Your task to perform on an android device: turn off data saver in the chrome app Image 0: 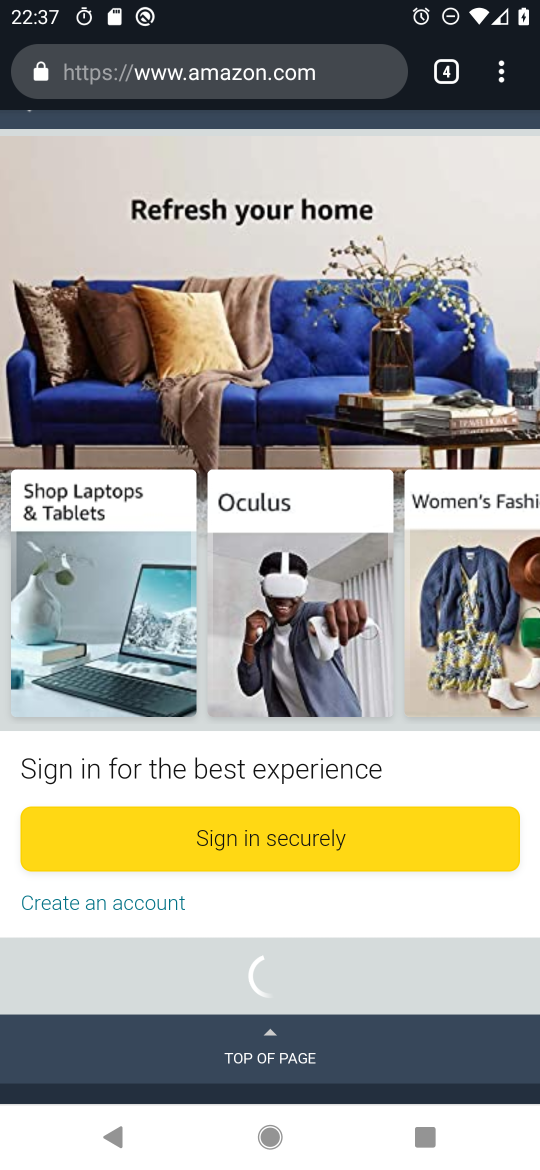
Step 0: press home button
Your task to perform on an android device: turn off data saver in the chrome app Image 1: 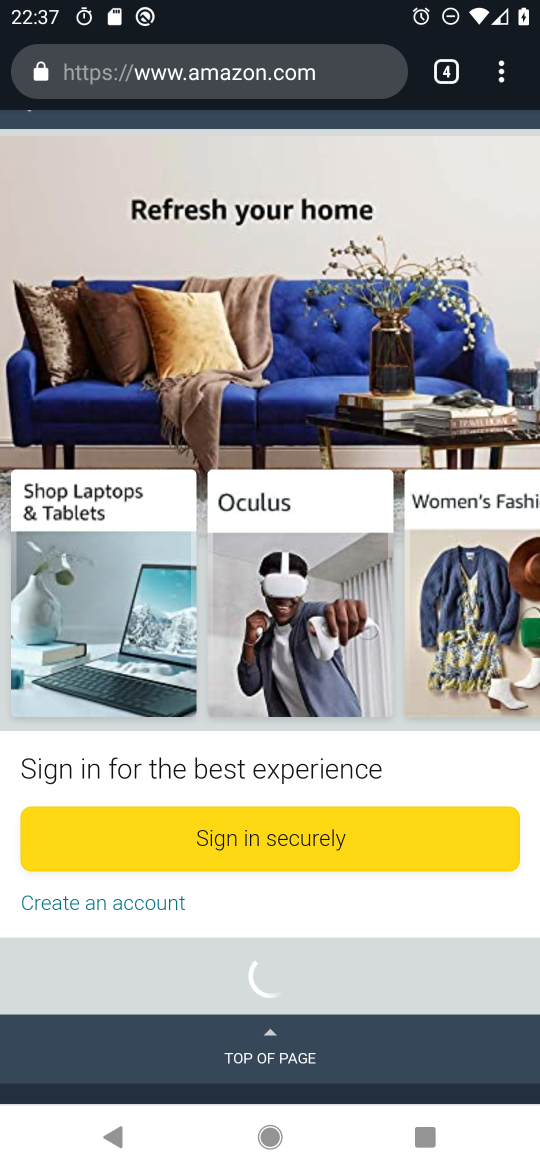
Step 1: drag from (303, 943) to (327, 18)
Your task to perform on an android device: turn off data saver in the chrome app Image 2: 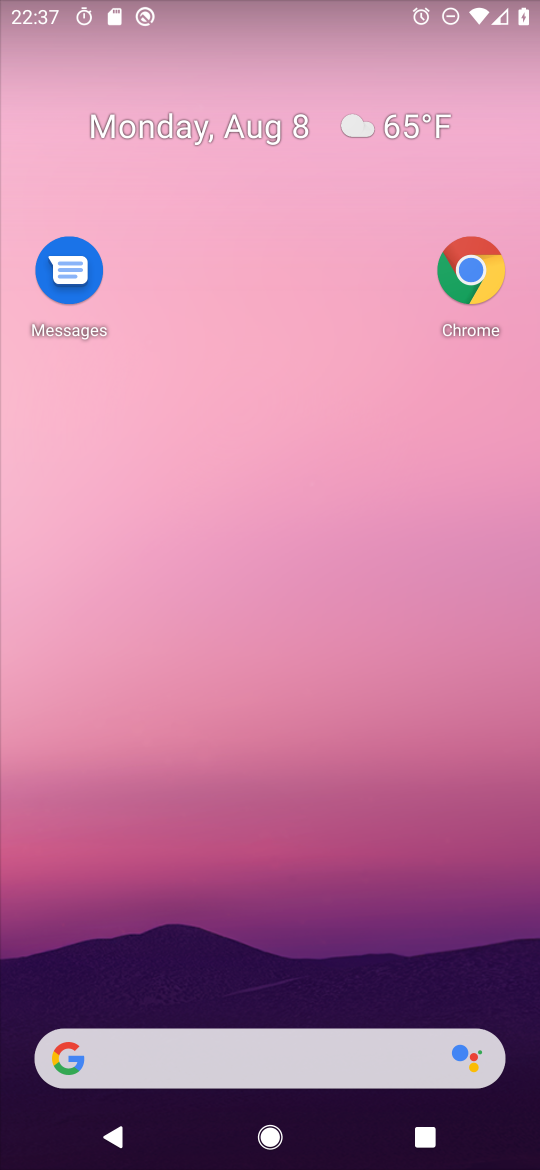
Step 2: click (471, 274)
Your task to perform on an android device: turn off data saver in the chrome app Image 3: 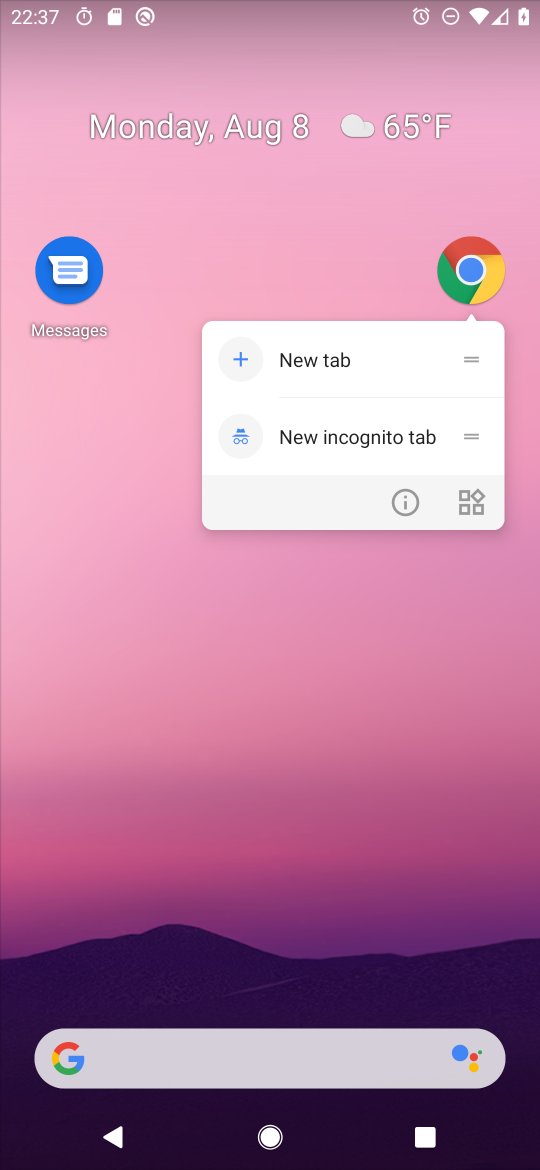
Step 3: click (398, 488)
Your task to perform on an android device: turn off data saver in the chrome app Image 4: 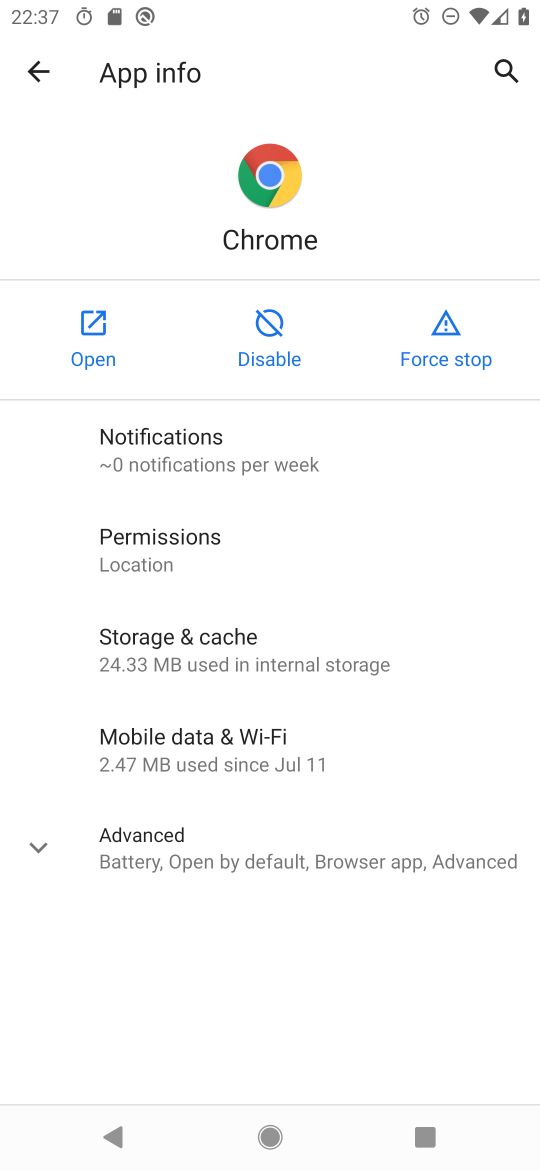
Step 4: click (90, 324)
Your task to perform on an android device: turn off data saver in the chrome app Image 5: 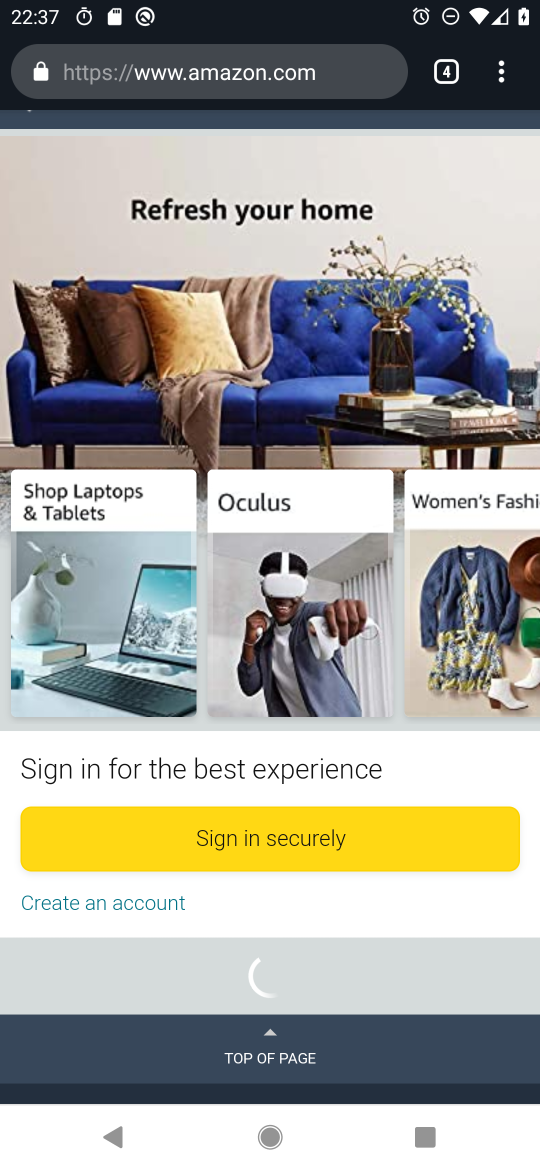
Step 5: drag from (492, 76) to (280, 855)
Your task to perform on an android device: turn off data saver in the chrome app Image 6: 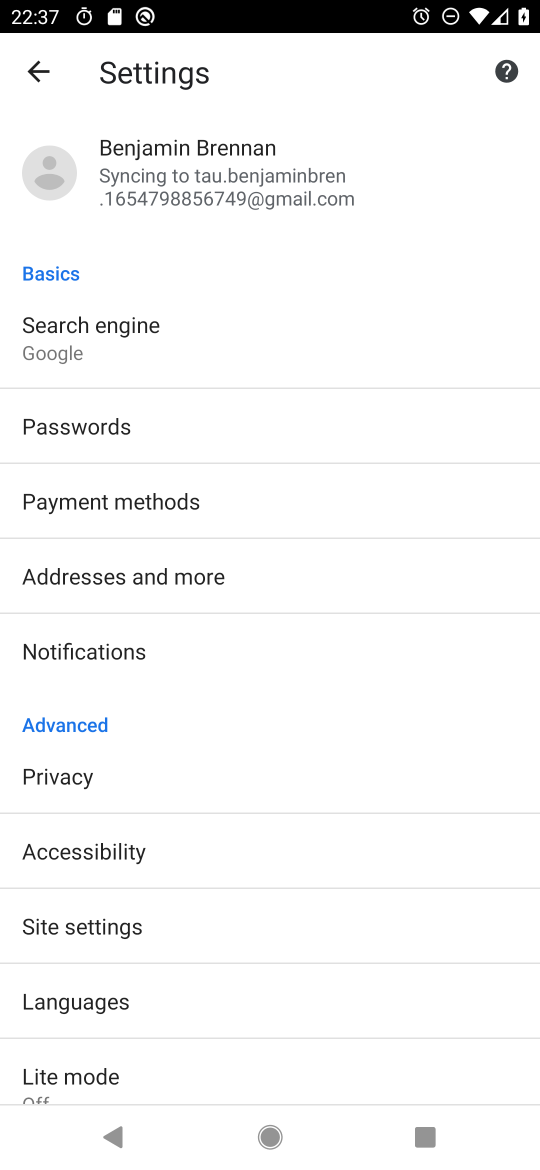
Step 6: drag from (228, 1007) to (289, 527)
Your task to perform on an android device: turn off data saver in the chrome app Image 7: 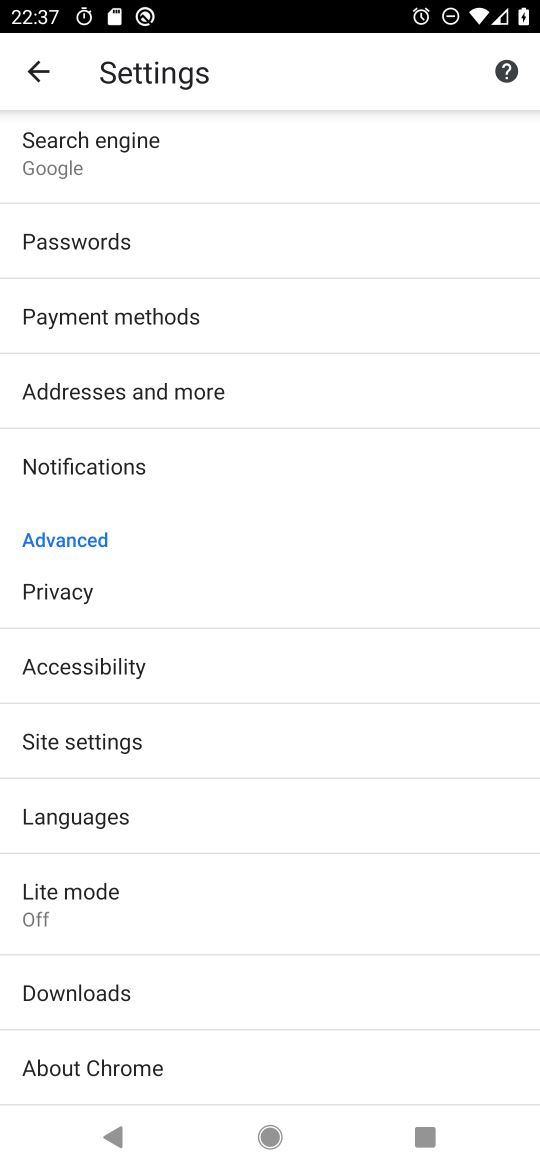
Step 7: click (118, 932)
Your task to perform on an android device: turn off data saver in the chrome app Image 8: 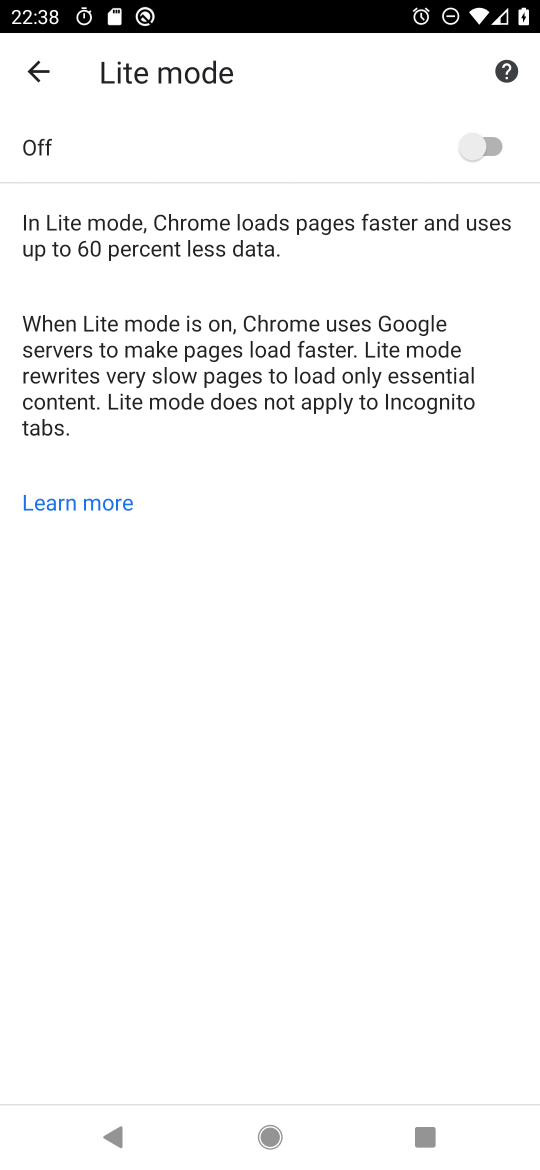
Step 8: task complete